Your task to perform on an android device: Go to CNN.com Image 0: 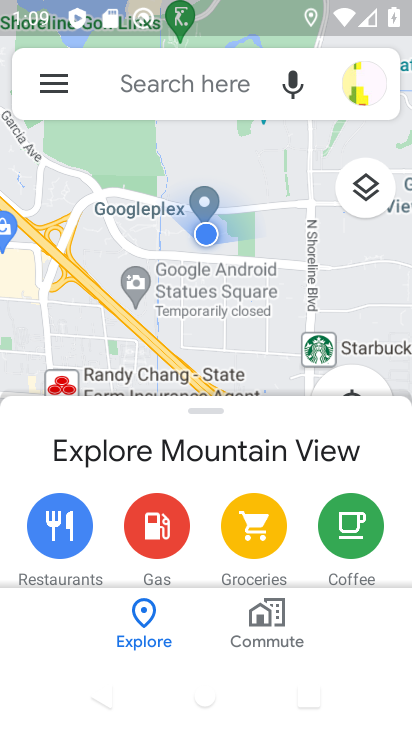
Step 0: press home button
Your task to perform on an android device: Go to CNN.com Image 1: 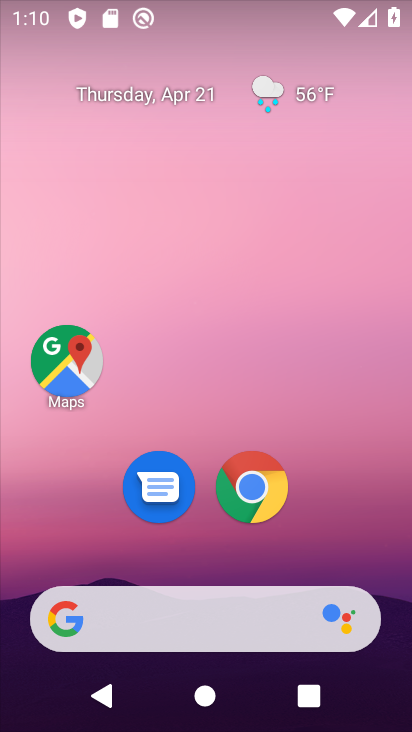
Step 1: click (255, 492)
Your task to perform on an android device: Go to CNN.com Image 2: 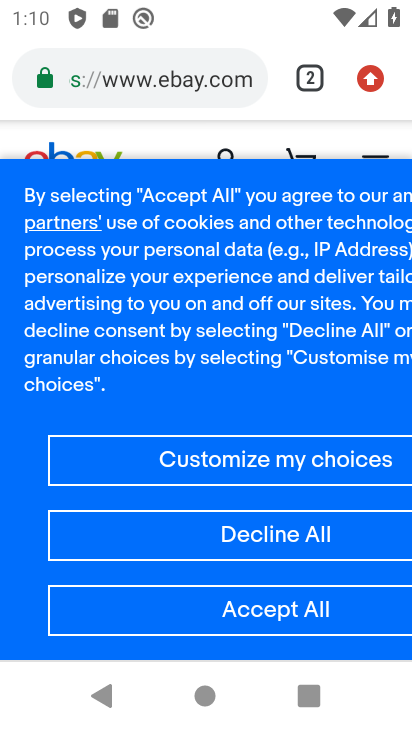
Step 2: click (150, 82)
Your task to perform on an android device: Go to CNN.com Image 3: 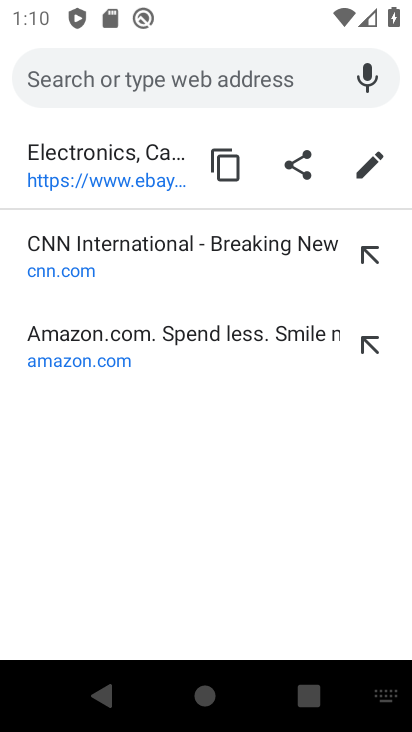
Step 3: click (52, 243)
Your task to perform on an android device: Go to CNN.com Image 4: 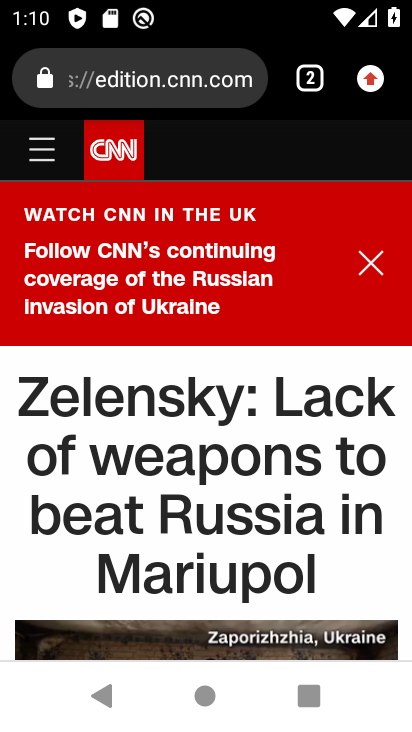
Step 4: task complete